Your task to perform on an android device: Show me popular games on the Play Store Image 0: 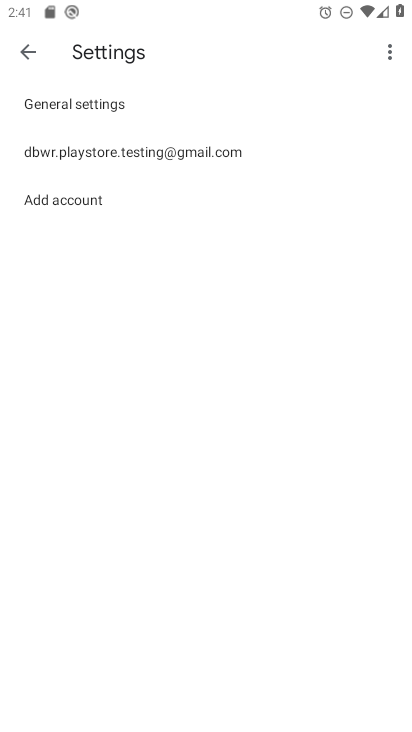
Step 0: press home button
Your task to perform on an android device: Show me popular games on the Play Store Image 1: 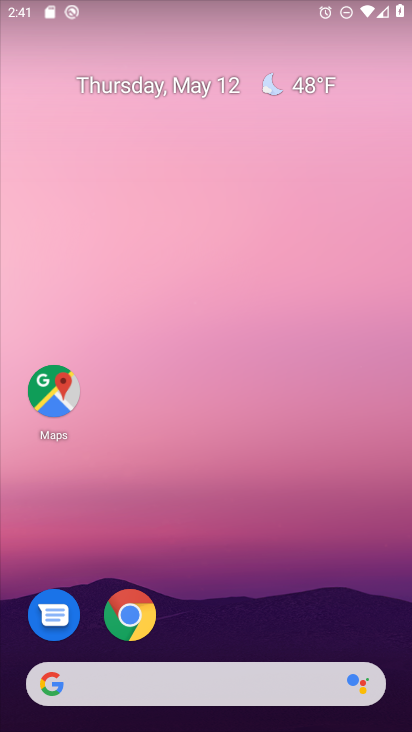
Step 1: drag from (334, 628) to (367, 7)
Your task to perform on an android device: Show me popular games on the Play Store Image 2: 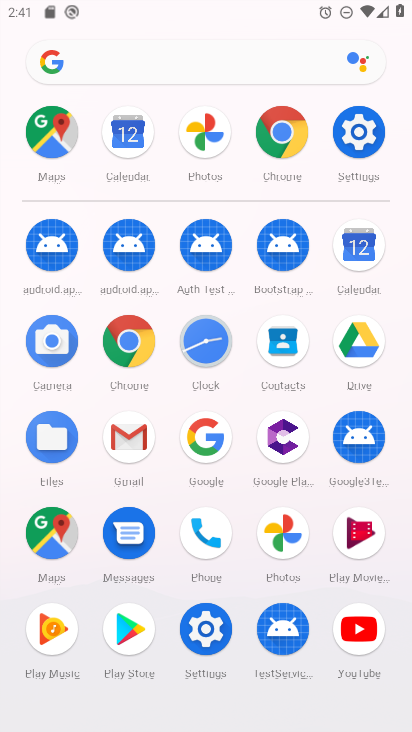
Step 2: click (137, 615)
Your task to perform on an android device: Show me popular games on the Play Store Image 3: 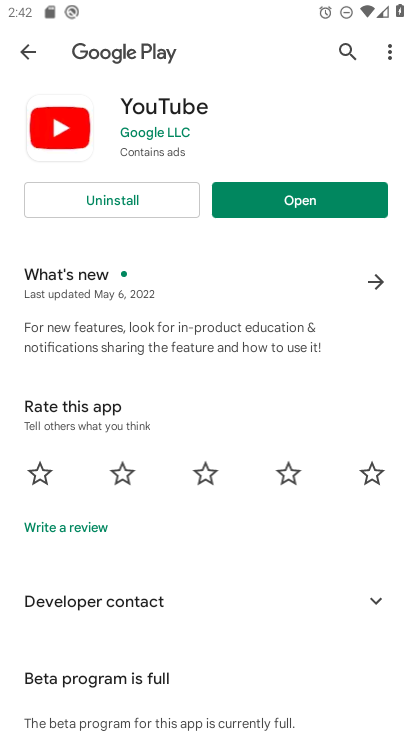
Step 3: press back button
Your task to perform on an android device: Show me popular games on the Play Store Image 4: 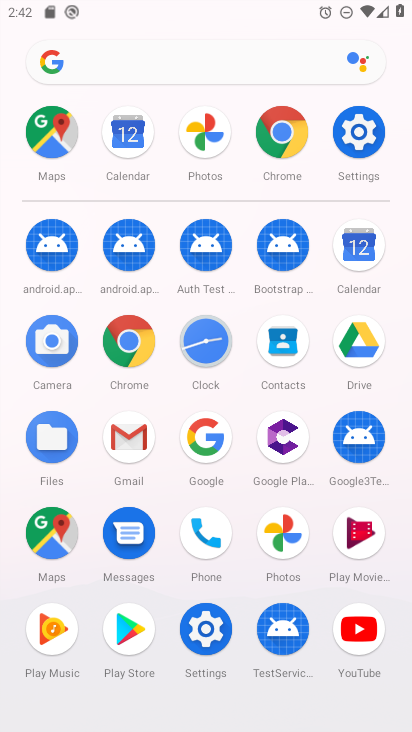
Step 4: click (138, 627)
Your task to perform on an android device: Show me popular games on the Play Store Image 5: 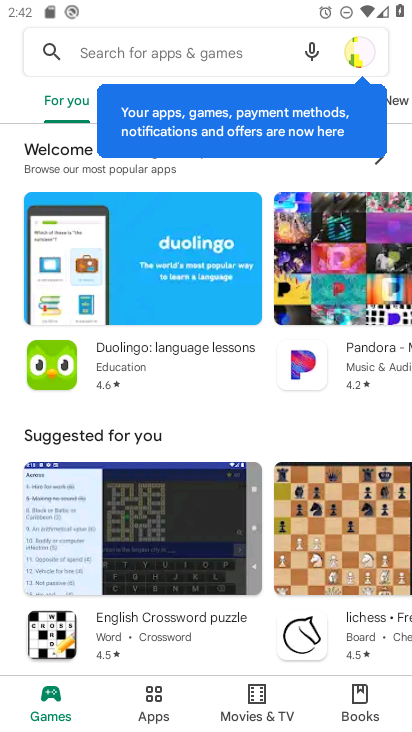
Step 5: click (141, 699)
Your task to perform on an android device: Show me popular games on the Play Store Image 6: 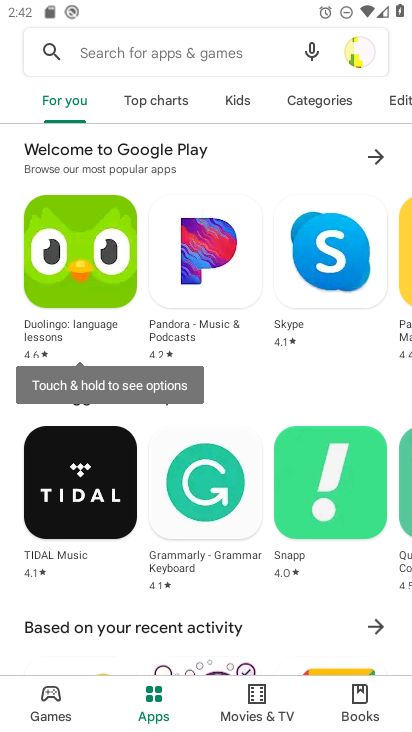
Step 6: click (43, 703)
Your task to perform on an android device: Show me popular games on the Play Store Image 7: 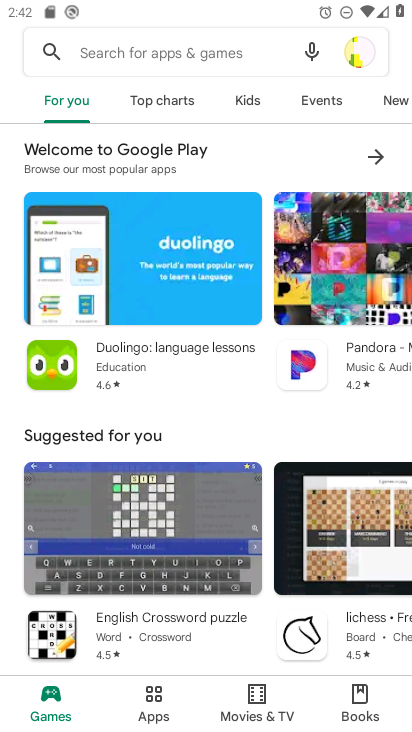
Step 7: task complete